Your task to perform on an android device: open app "WhatsApp Messenger" (install if not already installed) Image 0: 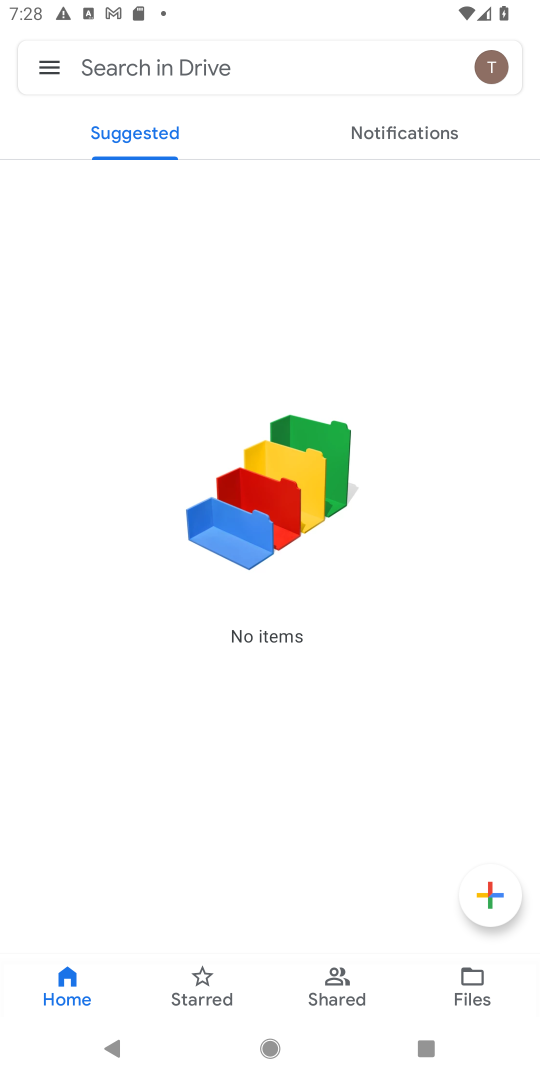
Step 0: press home button
Your task to perform on an android device: open app "WhatsApp Messenger" (install if not already installed) Image 1: 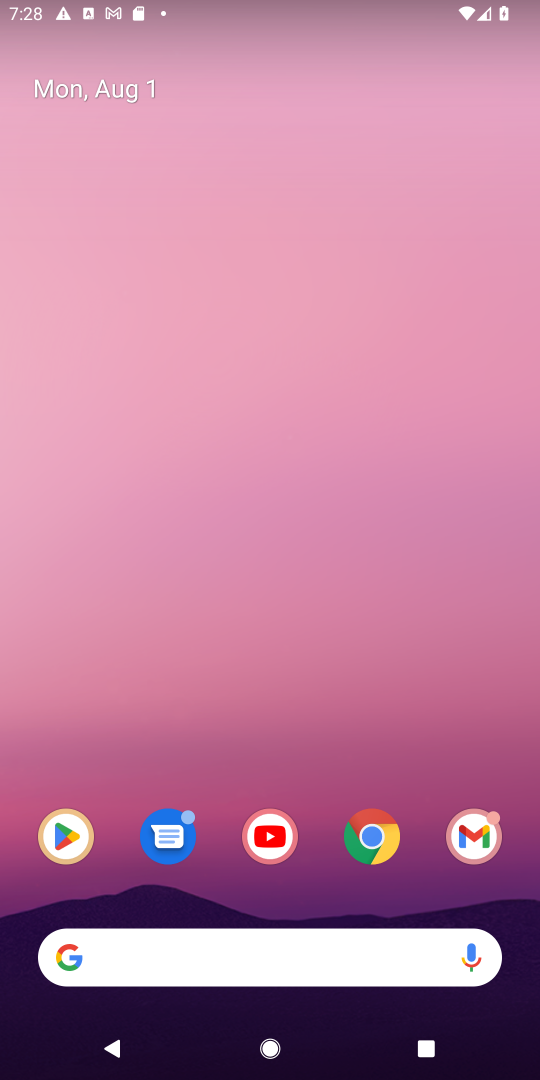
Step 1: click (72, 837)
Your task to perform on an android device: open app "WhatsApp Messenger" (install if not already installed) Image 2: 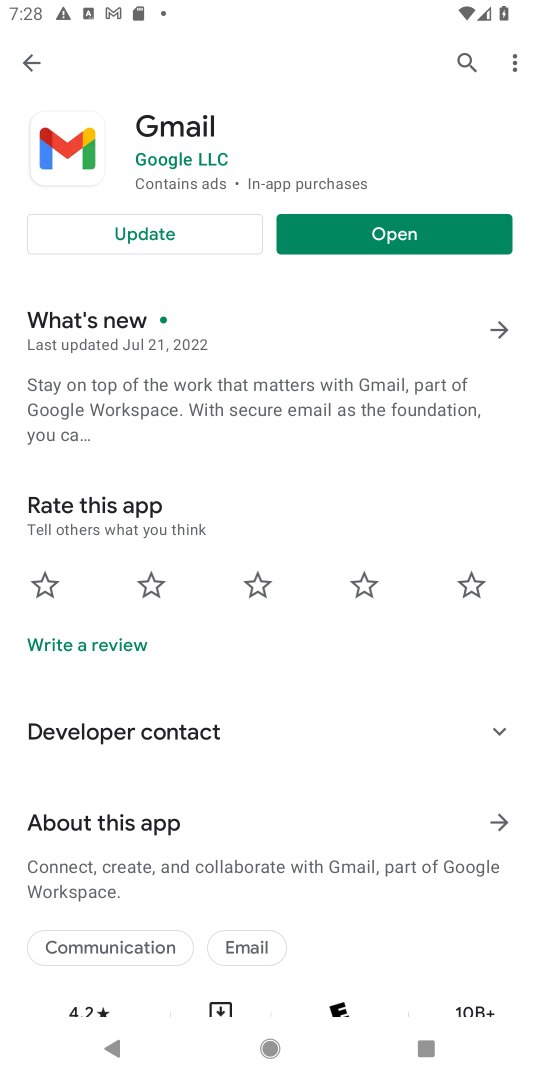
Step 2: click (463, 56)
Your task to perform on an android device: open app "WhatsApp Messenger" (install if not already installed) Image 3: 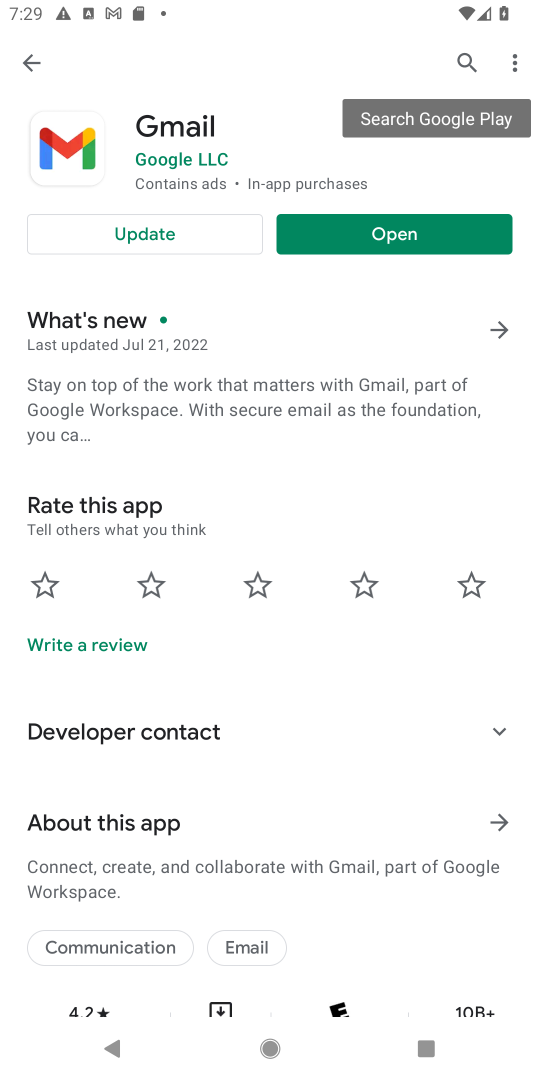
Step 3: click (461, 66)
Your task to perform on an android device: open app "WhatsApp Messenger" (install if not already installed) Image 4: 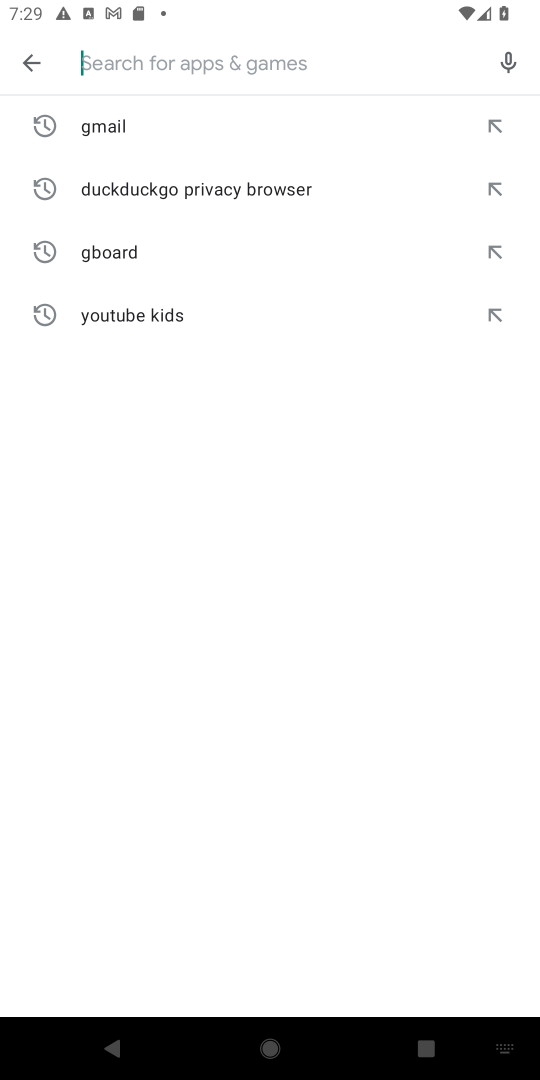
Step 4: type "WhatsApp Messenger"
Your task to perform on an android device: open app "WhatsApp Messenger" (install if not already installed) Image 5: 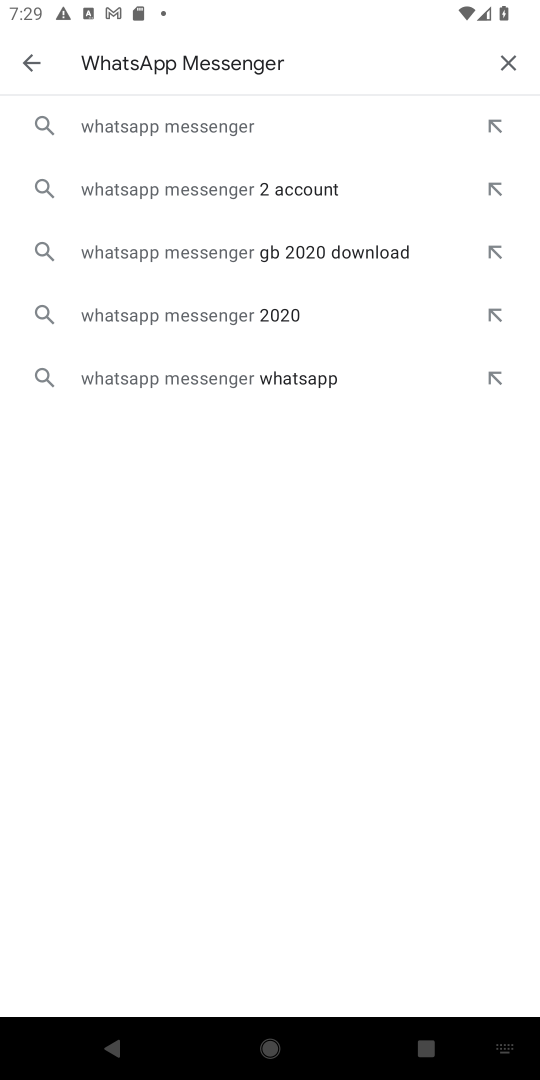
Step 5: click (250, 126)
Your task to perform on an android device: open app "WhatsApp Messenger" (install if not already installed) Image 6: 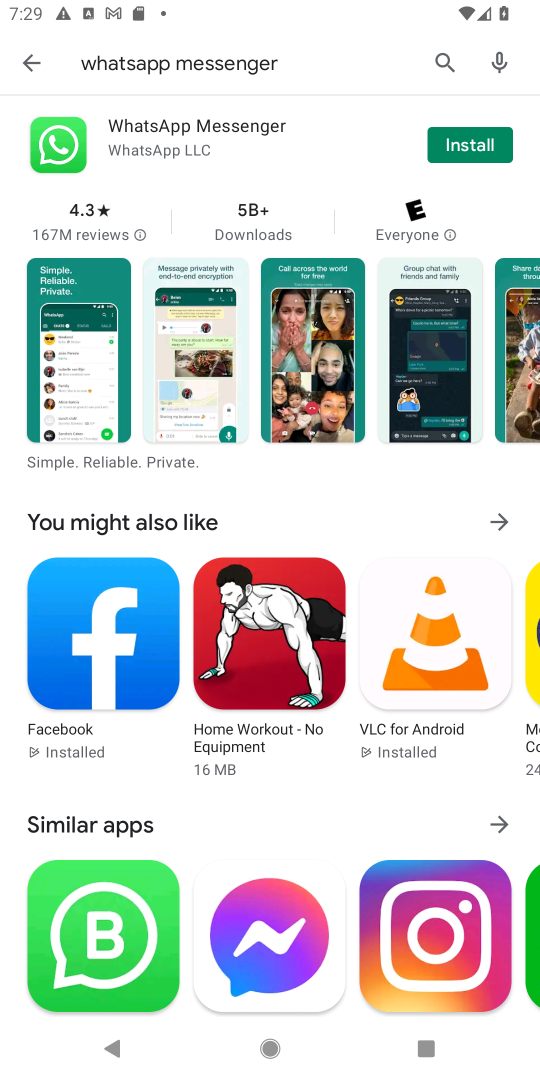
Step 6: click (467, 144)
Your task to perform on an android device: open app "WhatsApp Messenger" (install if not already installed) Image 7: 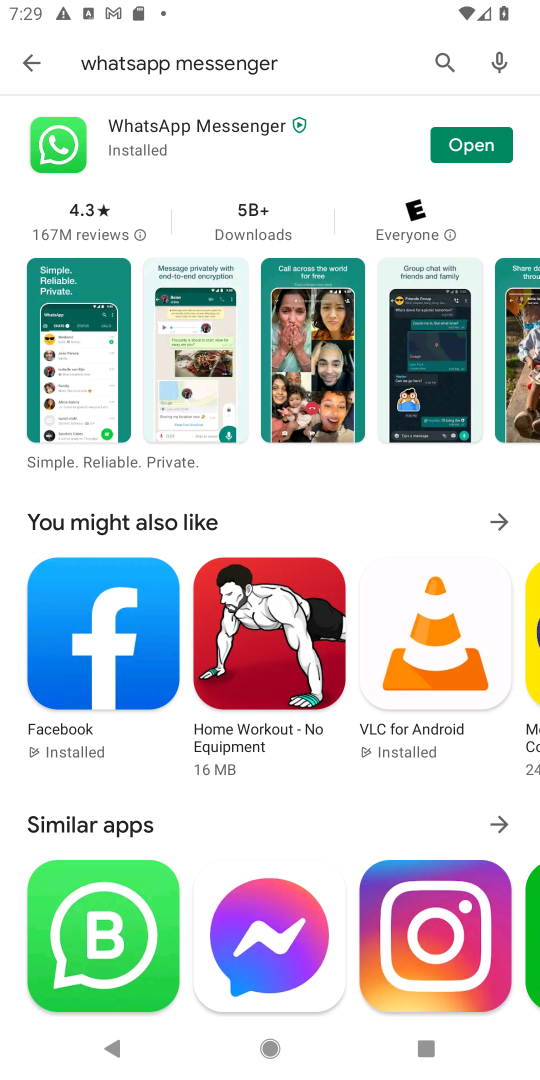
Step 7: click (477, 137)
Your task to perform on an android device: open app "WhatsApp Messenger" (install if not already installed) Image 8: 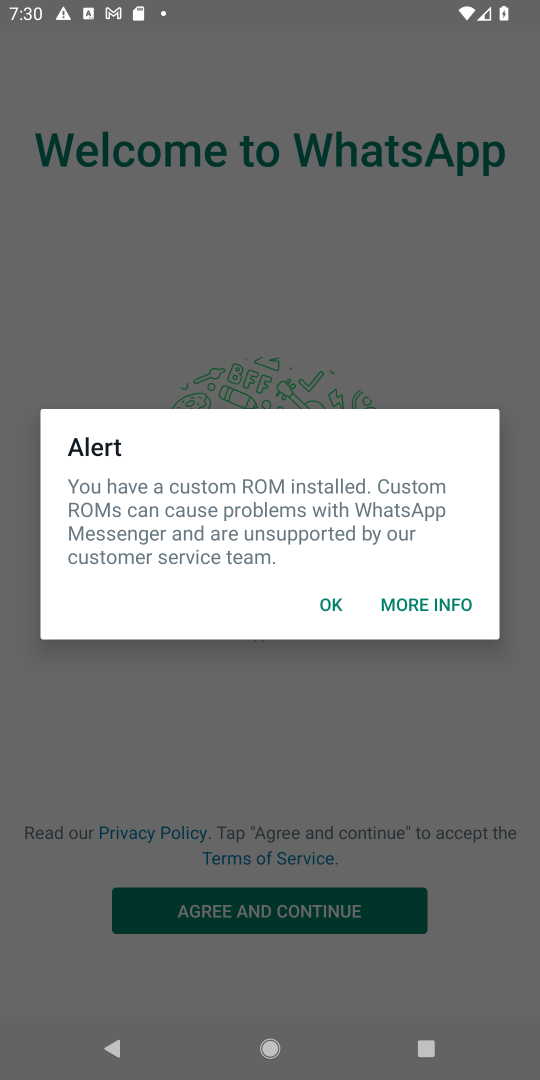
Step 8: task complete